Your task to perform on an android device: Open Youtube and go to "Your channel" Image 0: 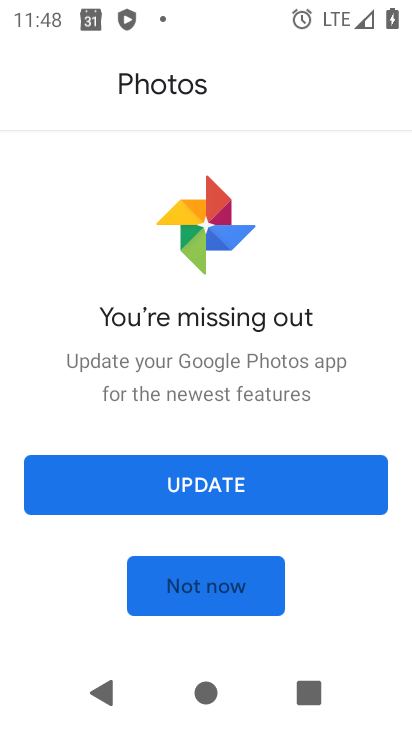
Step 0: press back button
Your task to perform on an android device: Open Youtube and go to "Your channel" Image 1: 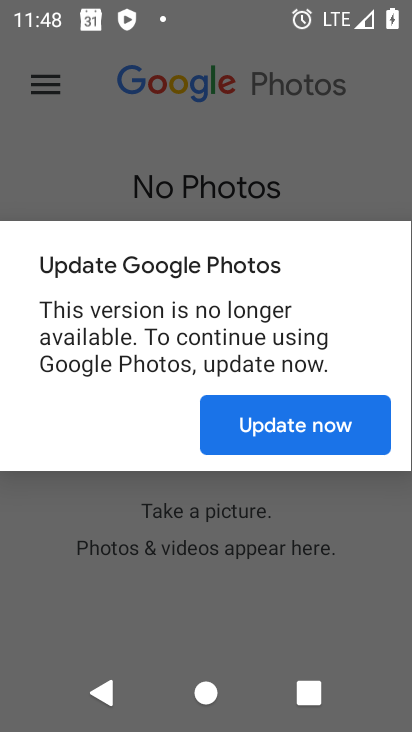
Step 1: press back button
Your task to perform on an android device: Open Youtube and go to "Your channel" Image 2: 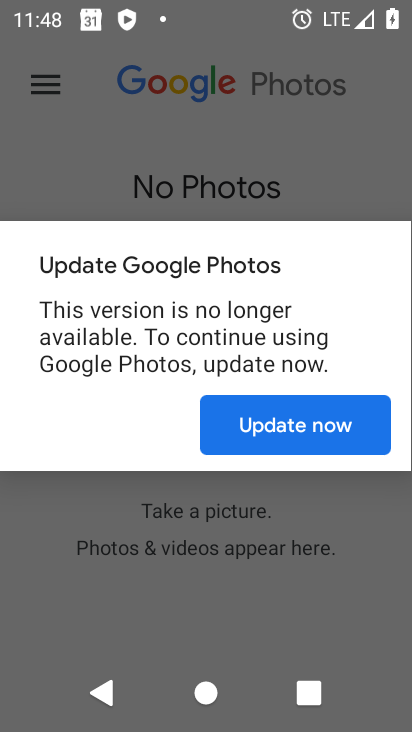
Step 2: press back button
Your task to perform on an android device: Open Youtube and go to "Your channel" Image 3: 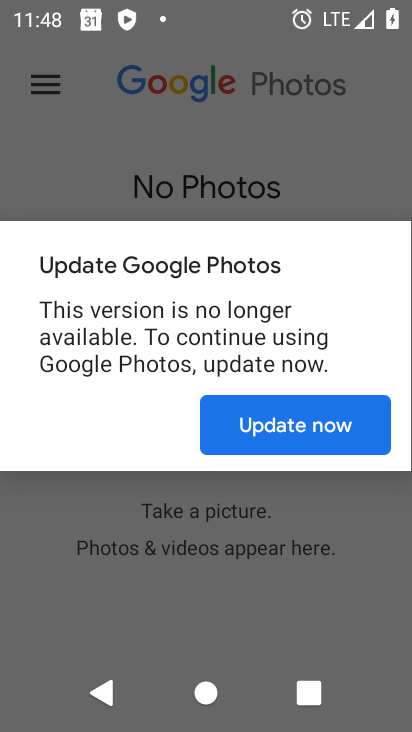
Step 3: press home button
Your task to perform on an android device: Open Youtube and go to "Your channel" Image 4: 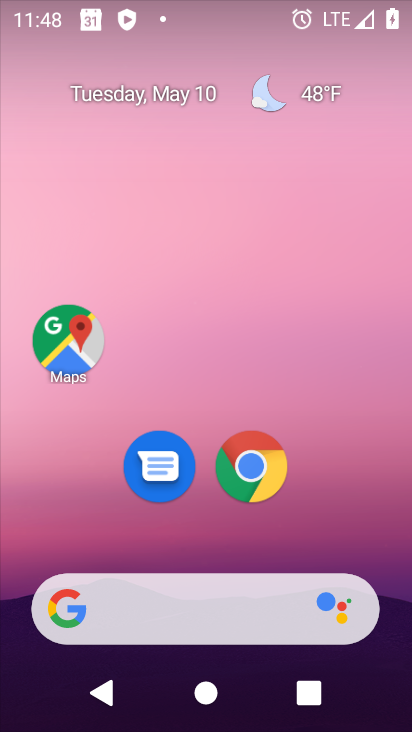
Step 4: drag from (182, 398) to (231, 87)
Your task to perform on an android device: Open Youtube and go to "Your channel" Image 5: 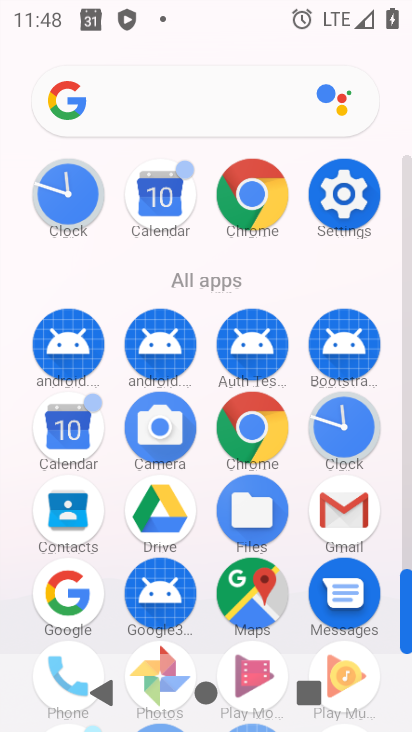
Step 5: drag from (175, 683) to (321, 18)
Your task to perform on an android device: Open Youtube and go to "Your channel" Image 6: 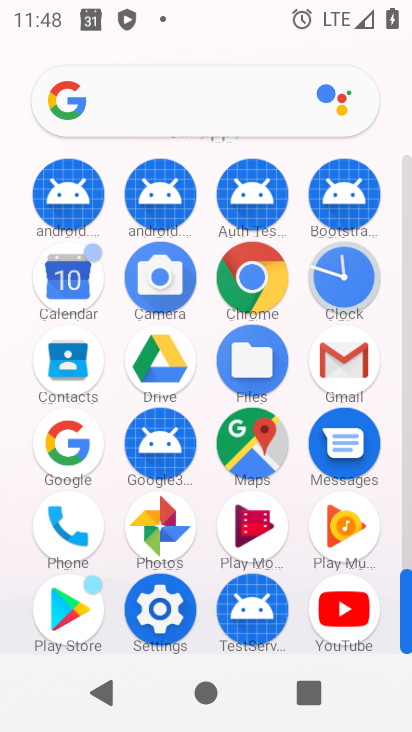
Step 6: click (346, 617)
Your task to perform on an android device: Open Youtube and go to "Your channel" Image 7: 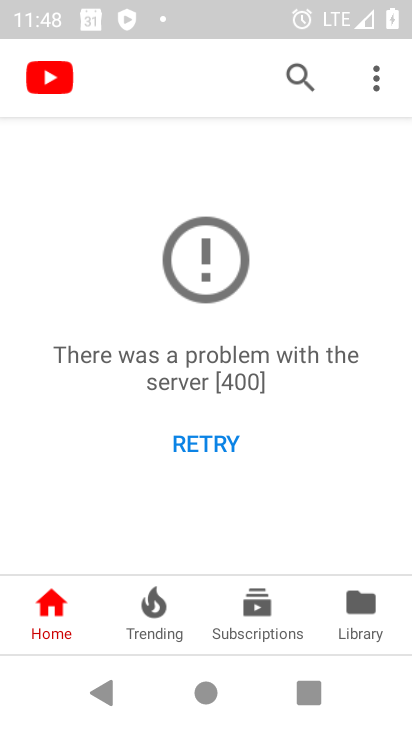
Step 7: task complete